Your task to perform on an android device: set the timer Image 0: 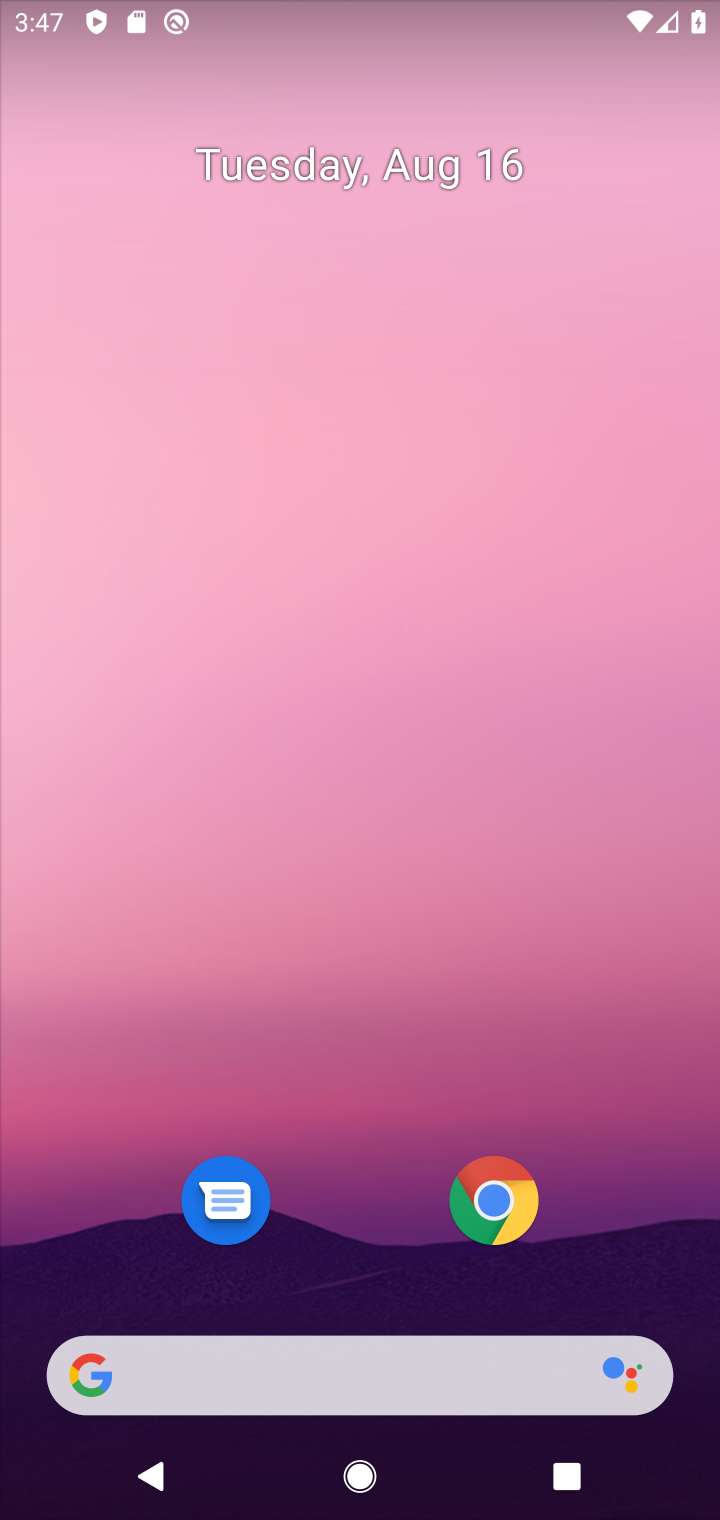
Step 0: press home button
Your task to perform on an android device: set the timer Image 1: 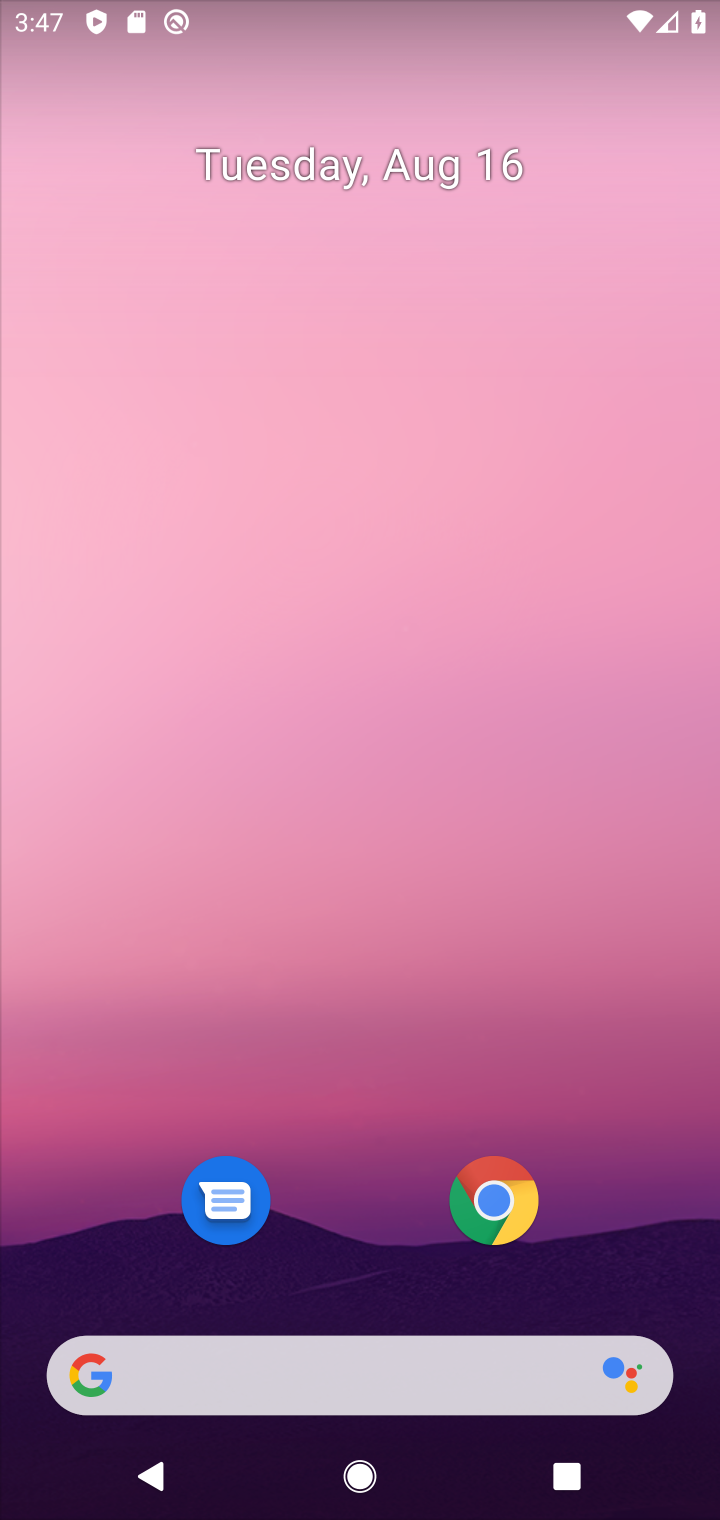
Step 1: drag from (313, 1244) to (334, 450)
Your task to perform on an android device: set the timer Image 2: 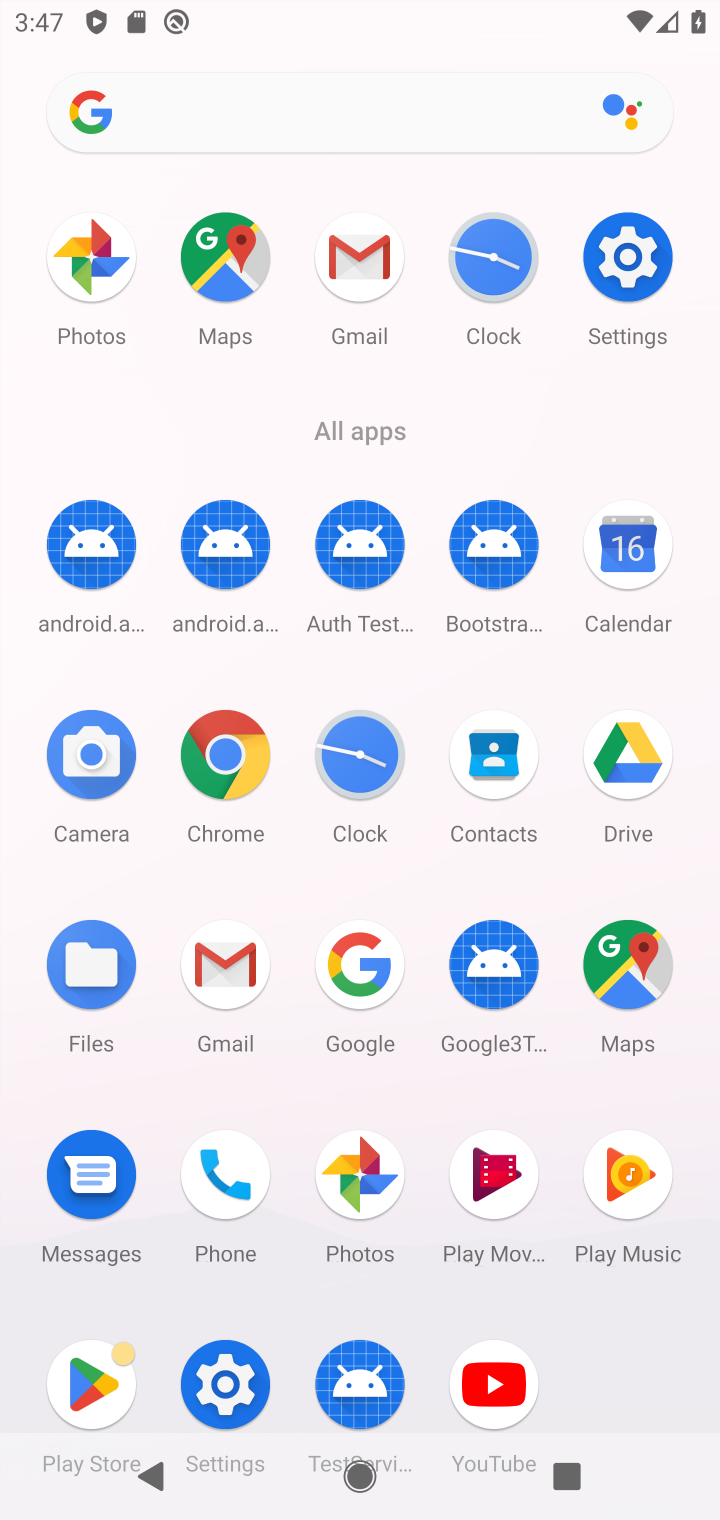
Step 2: click (474, 278)
Your task to perform on an android device: set the timer Image 3: 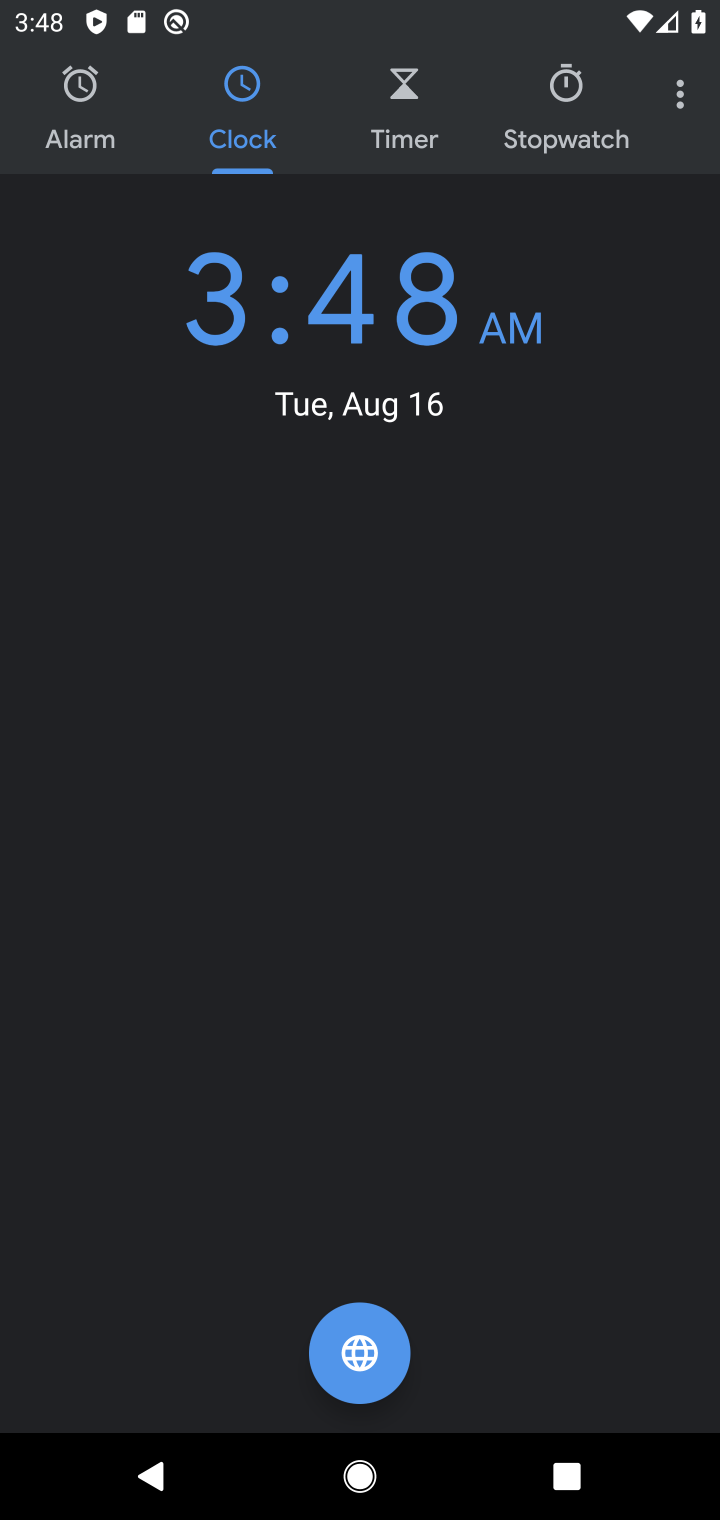
Step 3: click (417, 143)
Your task to perform on an android device: set the timer Image 4: 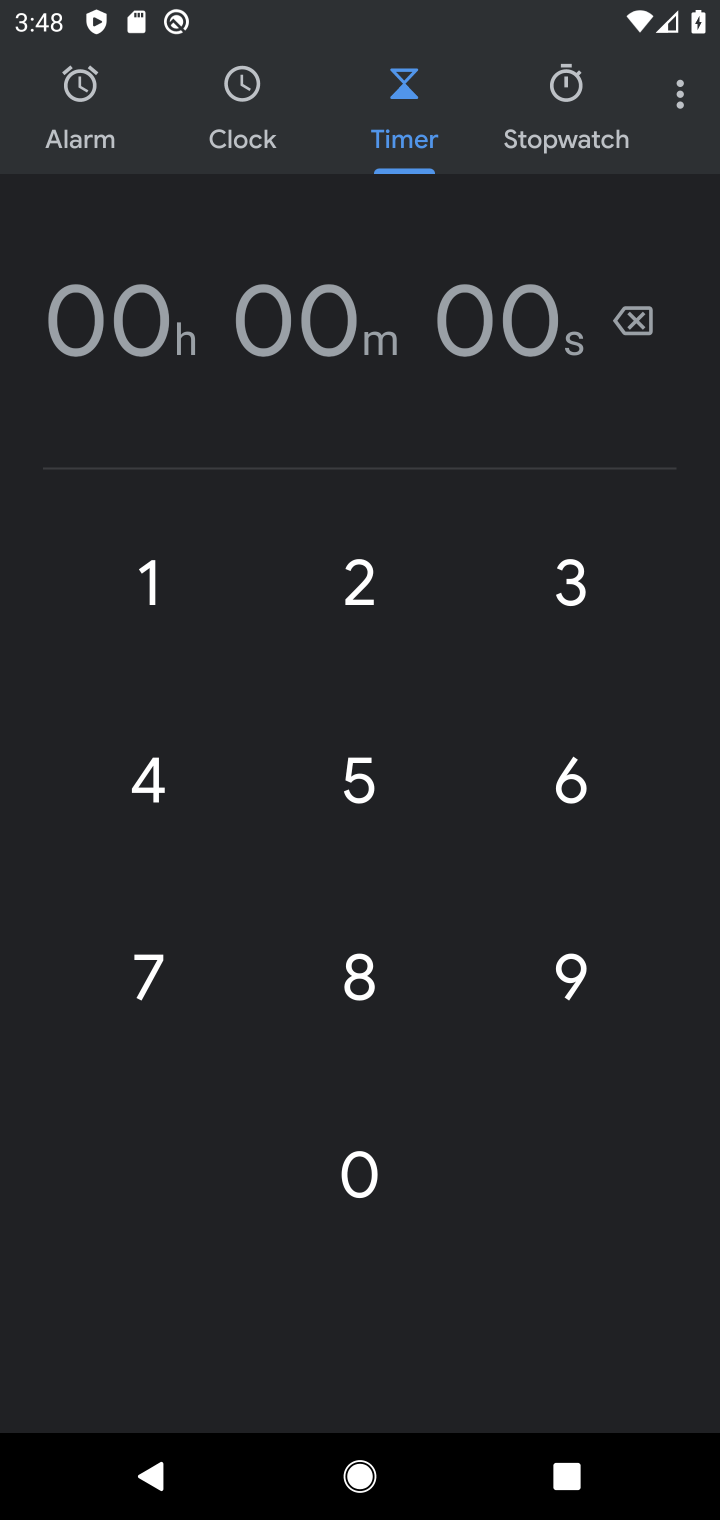
Step 4: click (396, 603)
Your task to perform on an android device: set the timer Image 5: 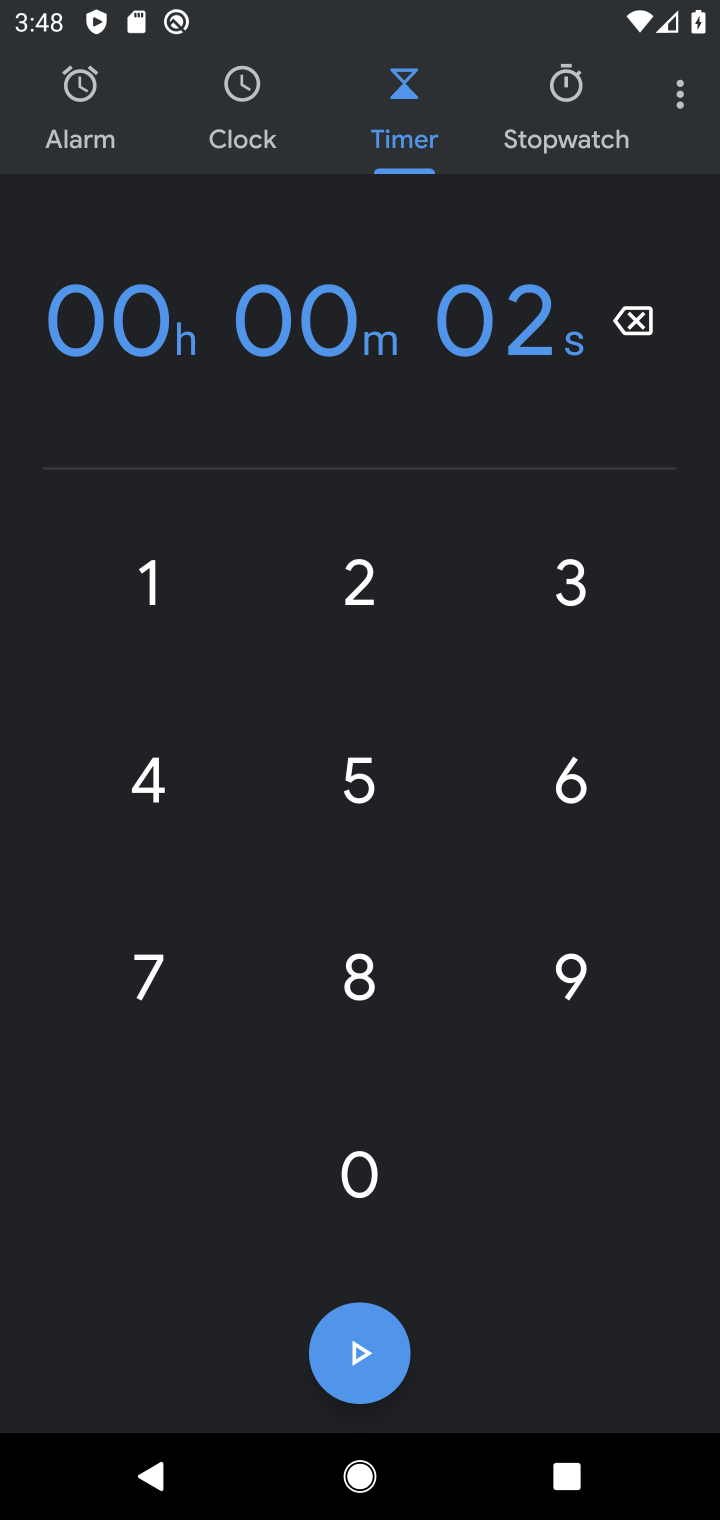
Step 5: click (371, 1344)
Your task to perform on an android device: set the timer Image 6: 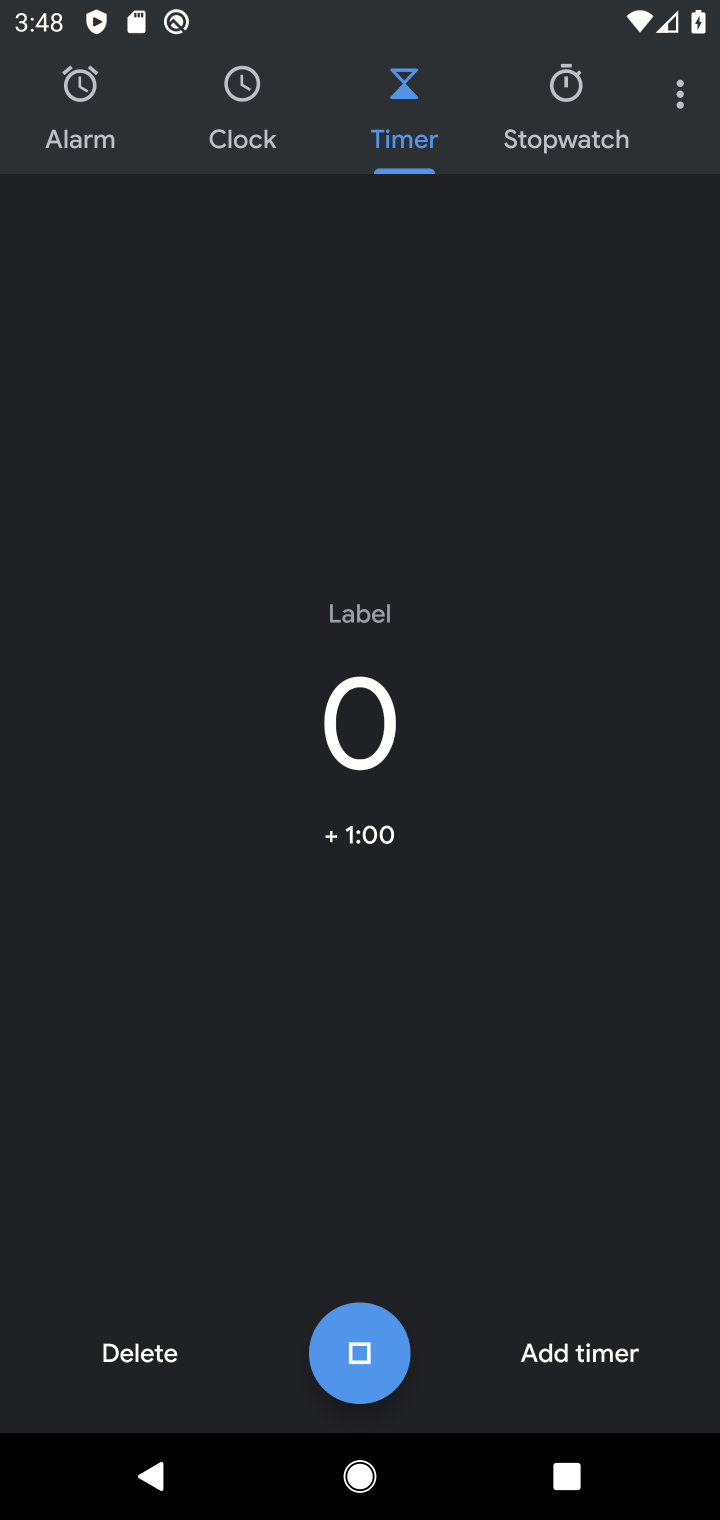
Step 6: task complete